Your task to perform on an android device: Add "bose soundlink mini" to the cart on amazon, then select checkout. Image 0: 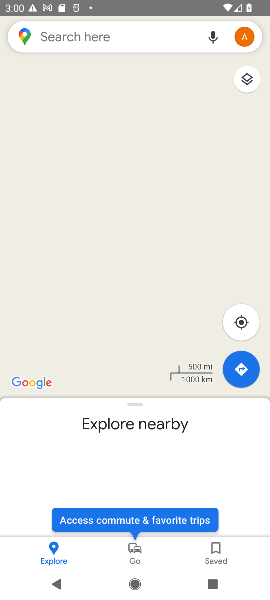
Step 0: press home button
Your task to perform on an android device: Add "bose soundlink mini" to the cart on amazon, then select checkout. Image 1: 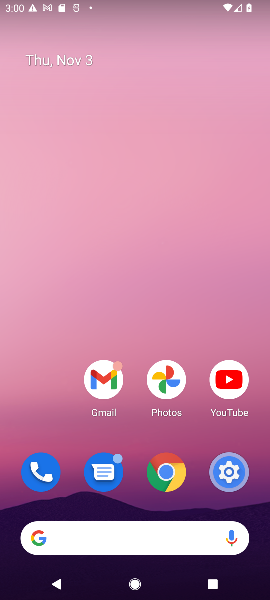
Step 1: click (141, 536)
Your task to perform on an android device: Add "bose soundlink mini" to the cart on amazon, then select checkout. Image 2: 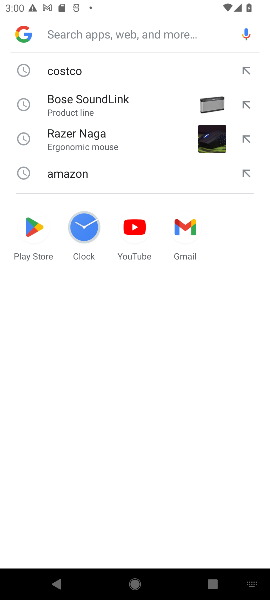
Step 2: click (88, 181)
Your task to perform on an android device: Add "bose soundlink mini" to the cart on amazon, then select checkout. Image 3: 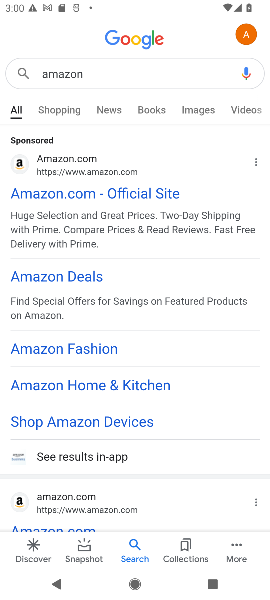
Step 3: click (74, 202)
Your task to perform on an android device: Add "bose soundlink mini" to the cart on amazon, then select checkout. Image 4: 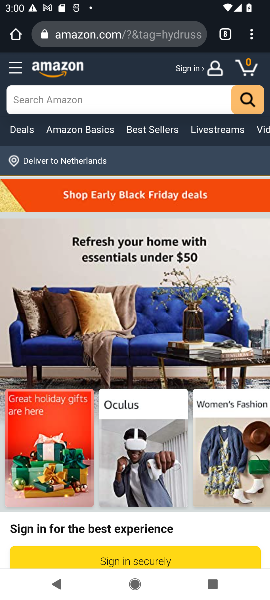
Step 4: click (107, 102)
Your task to perform on an android device: Add "bose soundlink mini" to the cart on amazon, then select checkout. Image 5: 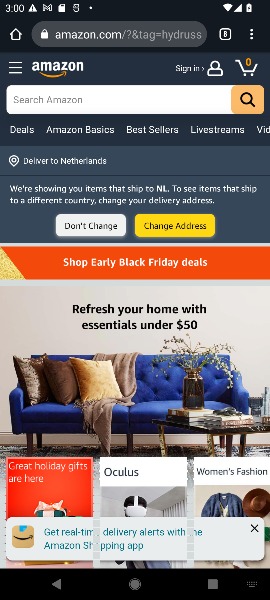
Step 5: type "bose soundlink"
Your task to perform on an android device: Add "bose soundlink mini" to the cart on amazon, then select checkout. Image 6: 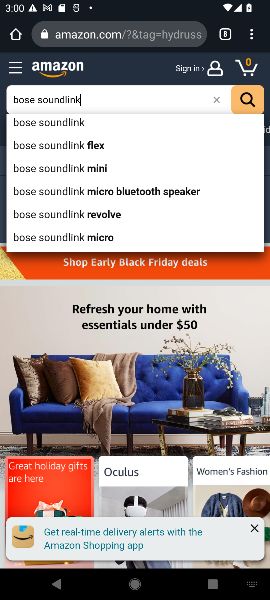
Step 6: click (83, 125)
Your task to perform on an android device: Add "bose soundlink mini" to the cart on amazon, then select checkout. Image 7: 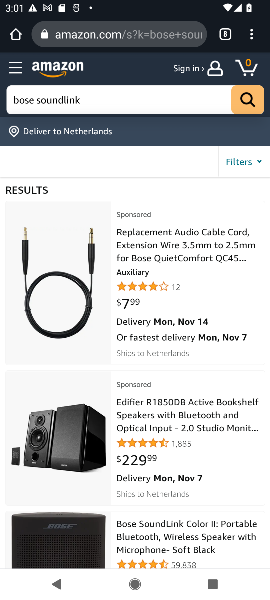
Step 7: click (163, 530)
Your task to perform on an android device: Add "bose soundlink mini" to the cart on amazon, then select checkout. Image 8: 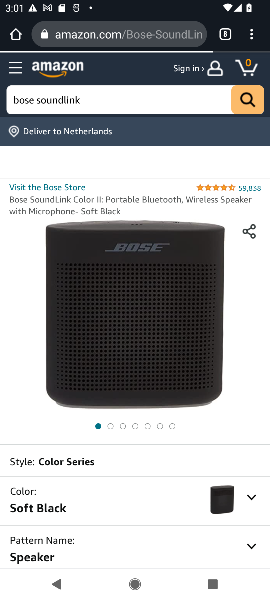
Step 8: drag from (163, 530) to (161, 336)
Your task to perform on an android device: Add "bose soundlink mini" to the cart on amazon, then select checkout. Image 9: 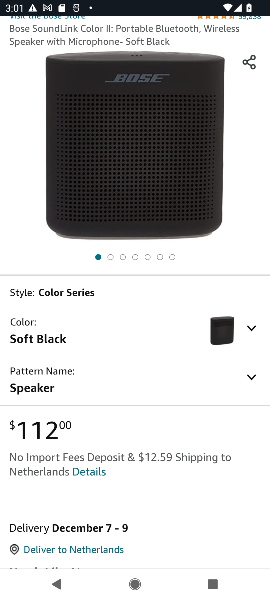
Step 9: drag from (142, 474) to (159, 168)
Your task to perform on an android device: Add "bose soundlink mini" to the cart on amazon, then select checkout. Image 10: 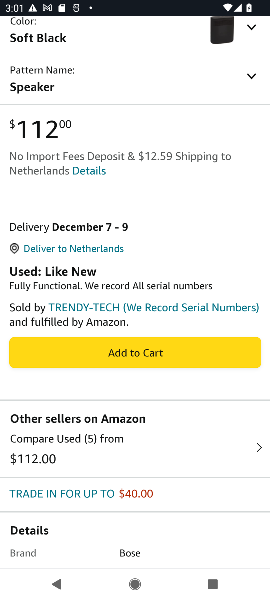
Step 10: click (181, 352)
Your task to perform on an android device: Add "bose soundlink mini" to the cart on amazon, then select checkout. Image 11: 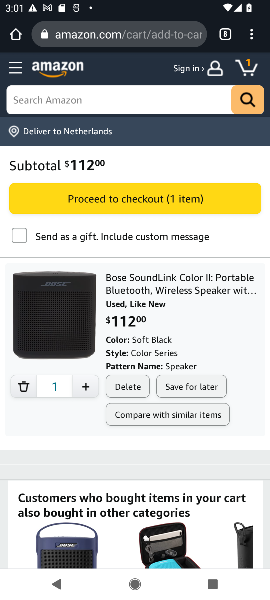
Step 11: task complete